Your task to perform on an android device: Open maps Image 0: 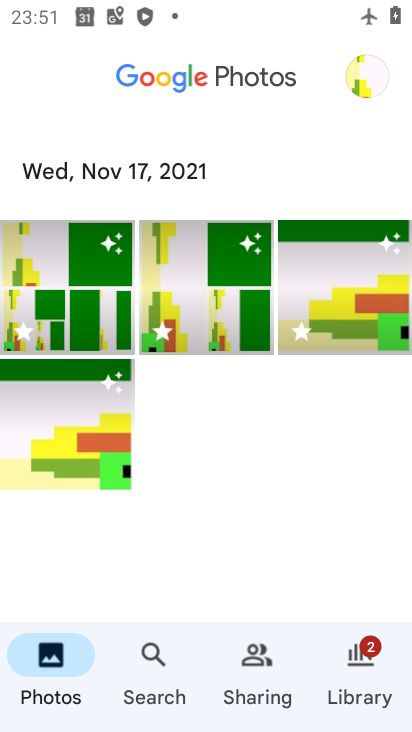
Step 0: press home button
Your task to perform on an android device: Open maps Image 1: 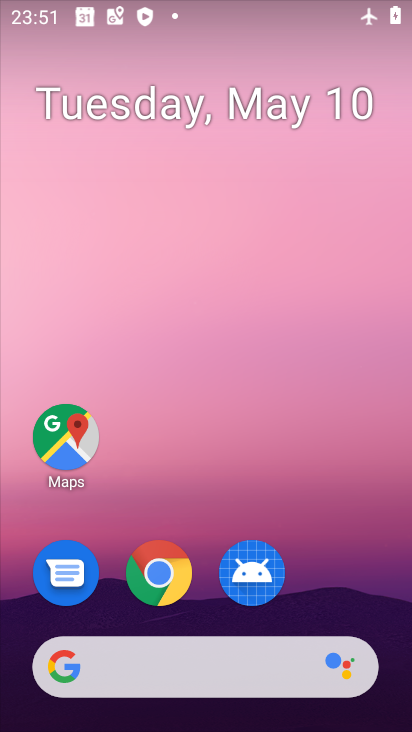
Step 1: click (64, 432)
Your task to perform on an android device: Open maps Image 2: 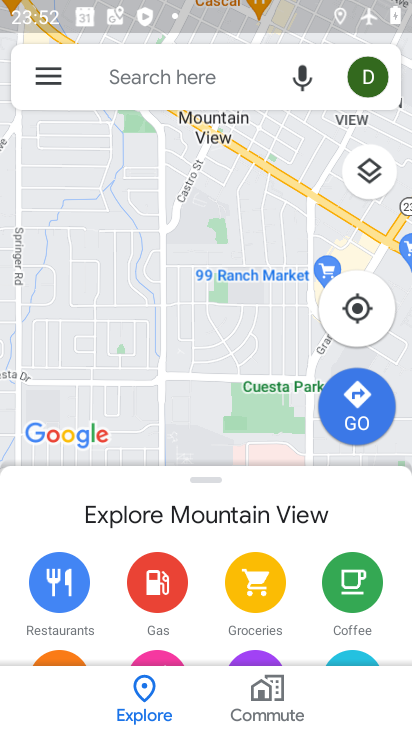
Step 2: task complete